Your task to perform on an android device: Open maps Image 0: 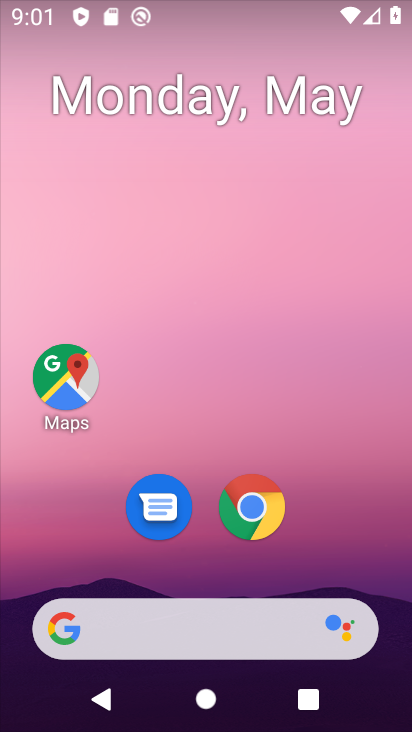
Step 0: click (64, 371)
Your task to perform on an android device: Open maps Image 1: 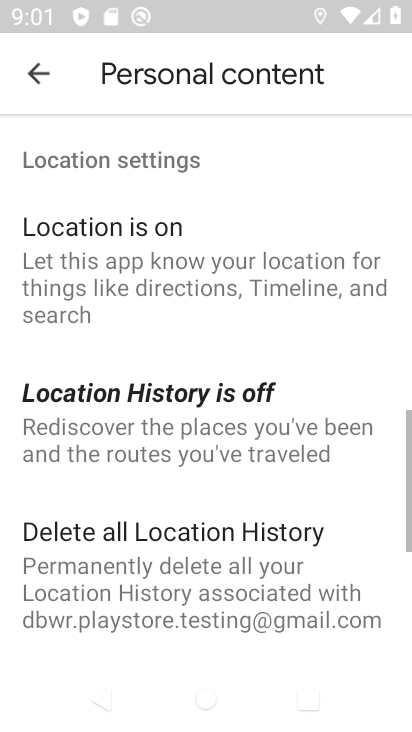
Step 1: click (44, 80)
Your task to perform on an android device: Open maps Image 2: 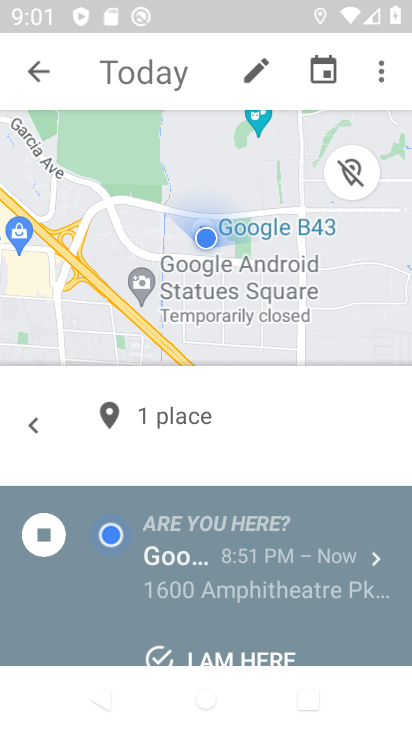
Step 2: task complete